Your task to perform on an android device: turn off airplane mode Image 0: 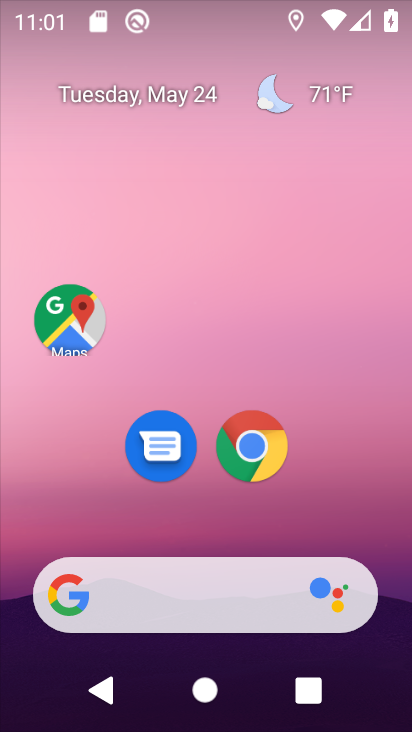
Step 0: click (223, 189)
Your task to perform on an android device: turn off airplane mode Image 1: 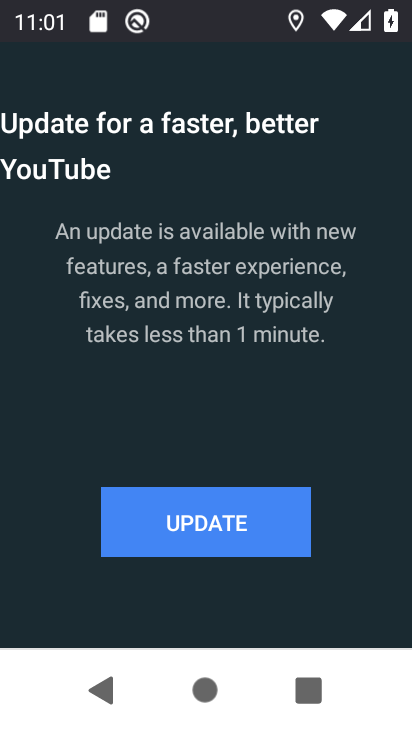
Step 1: press home button
Your task to perform on an android device: turn off airplane mode Image 2: 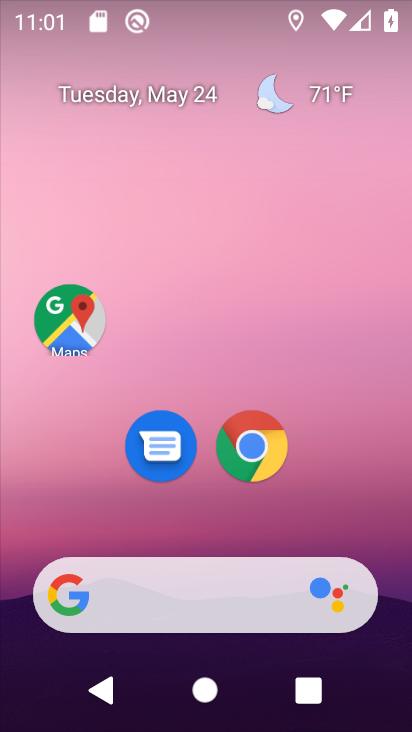
Step 2: drag from (238, 512) to (237, 120)
Your task to perform on an android device: turn off airplane mode Image 3: 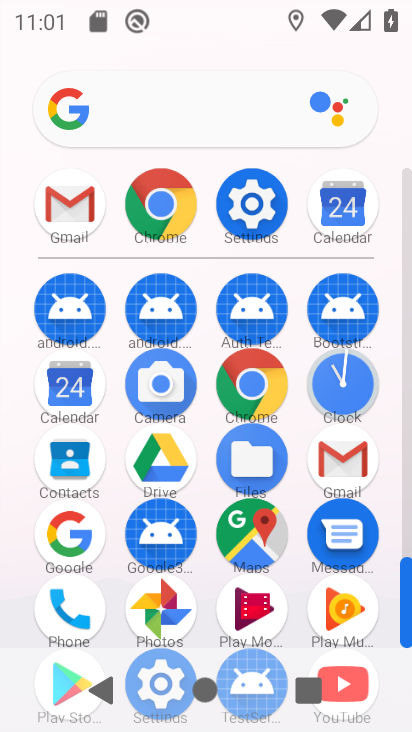
Step 3: click (248, 210)
Your task to perform on an android device: turn off airplane mode Image 4: 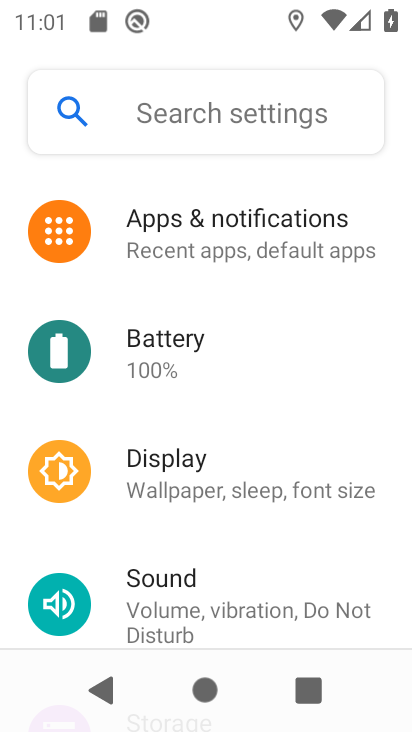
Step 4: drag from (217, 265) to (247, 635)
Your task to perform on an android device: turn off airplane mode Image 5: 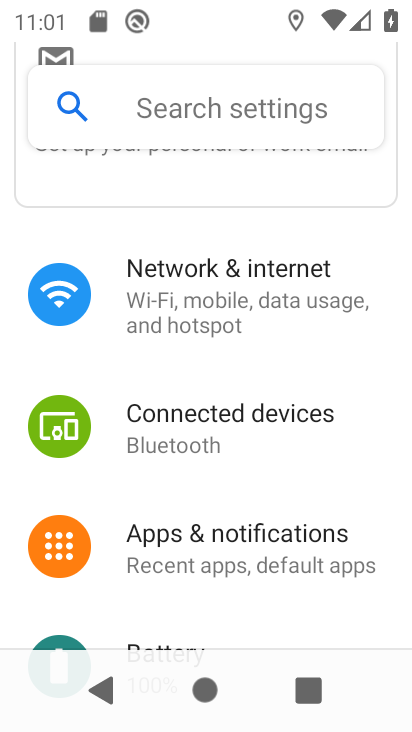
Step 5: click (240, 332)
Your task to perform on an android device: turn off airplane mode Image 6: 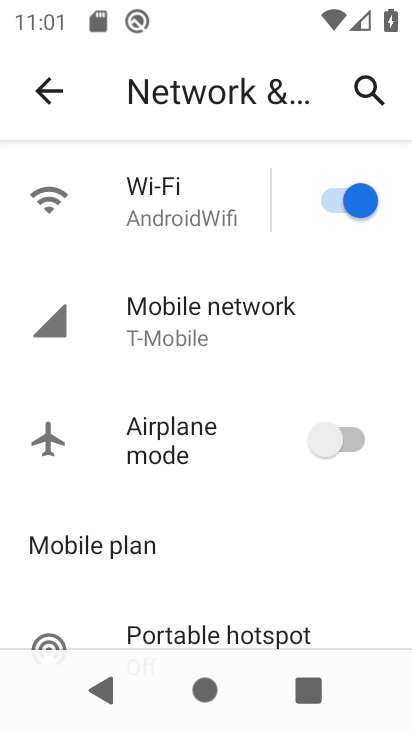
Step 6: task complete